Your task to perform on an android device: Open the phone app and click the voicemail tab. Image 0: 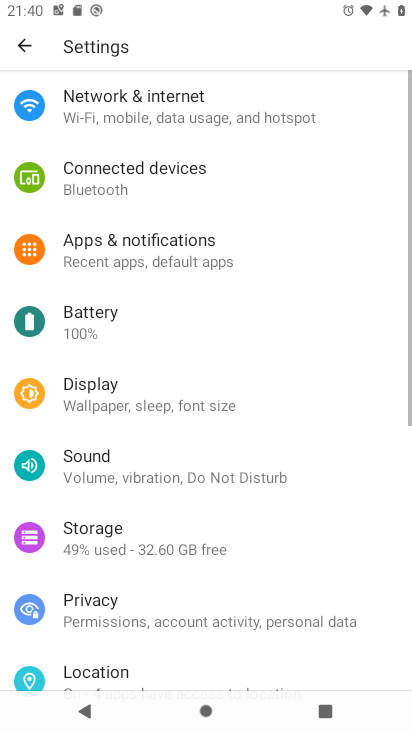
Step 0: press home button
Your task to perform on an android device: Open the phone app and click the voicemail tab. Image 1: 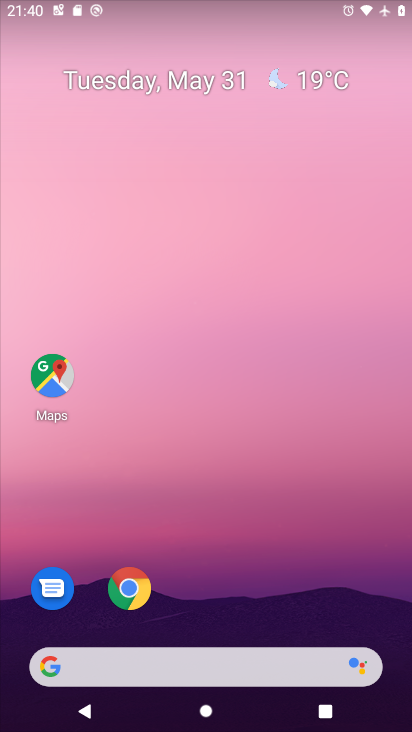
Step 1: drag from (154, 661) to (286, 108)
Your task to perform on an android device: Open the phone app and click the voicemail tab. Image 2: 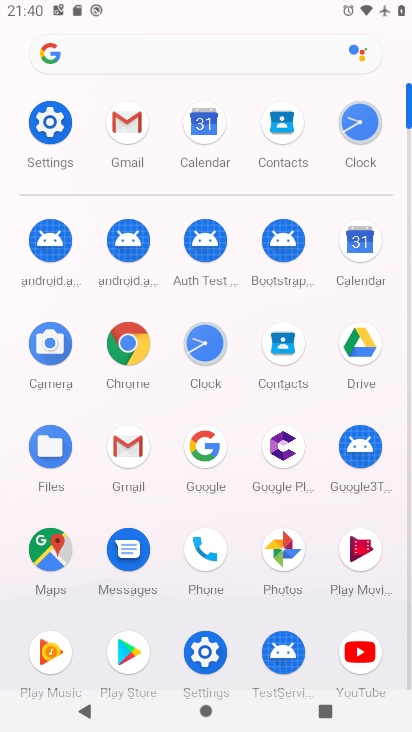
Step 2: click (211, 552)
Your task to perform on an android device: Open the phone app and click the voicemail tab. Image 3: 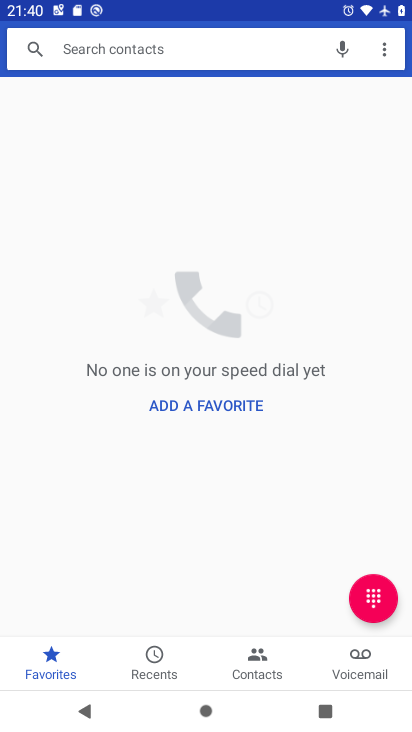
Step 3: click (359, 659)
Your task to perform on an android device: Open the phone app and click the voicemail tab. Image 4: 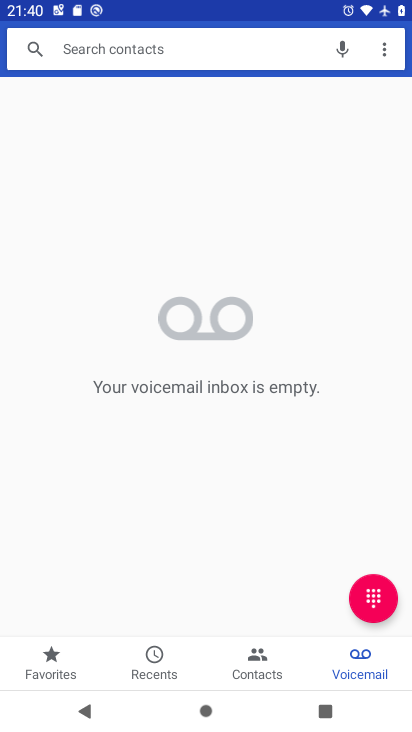
Step 4: task complete